Your task to perform on an android device: Go to Reddit.com Image 0: 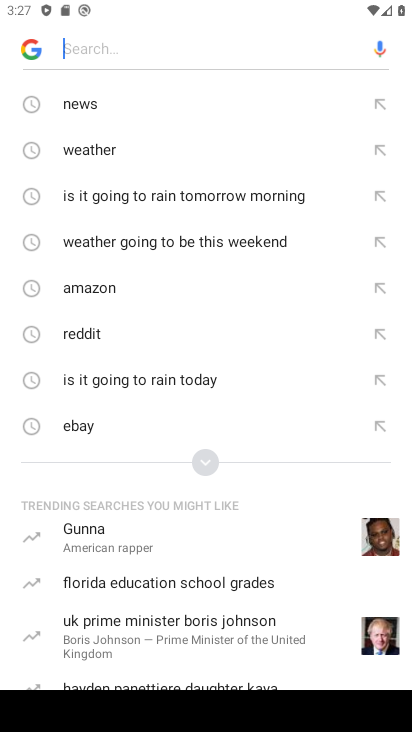
Step 0: press home button
Your task to perform on an android device: Go to Reddit.com Image 1: 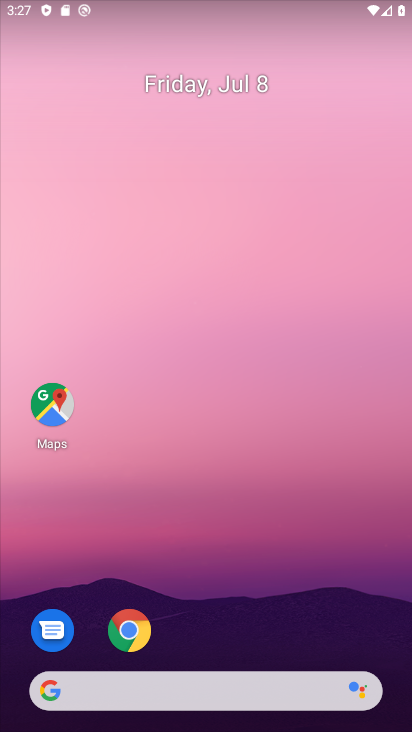
Step 1: click (127, 619)
Your task to perform on an android device: Go to Reddit.com Image 2: 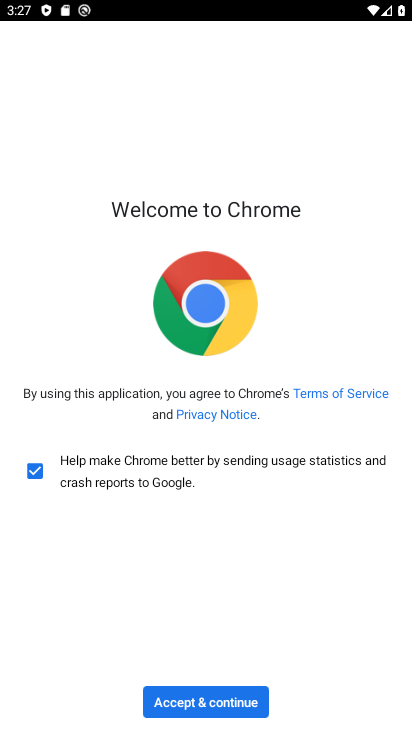
Step 2: click (240, 705)
Your task to perform on an android device: Go to Reddit.com Image 3: 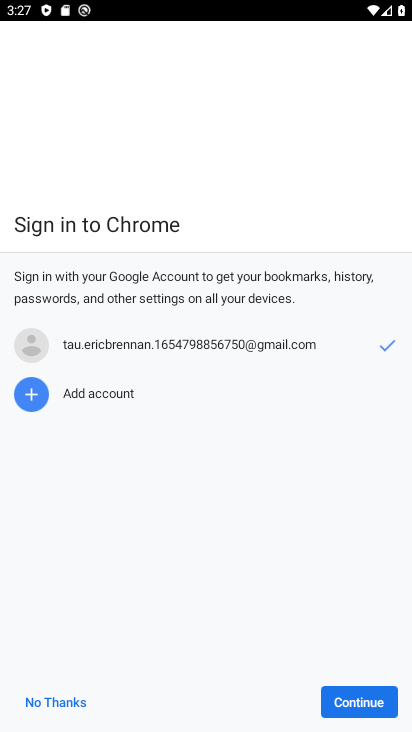
Step 3: click (346, 703)
Your task to perform on an android device: Go to Reddit.com Image 4: 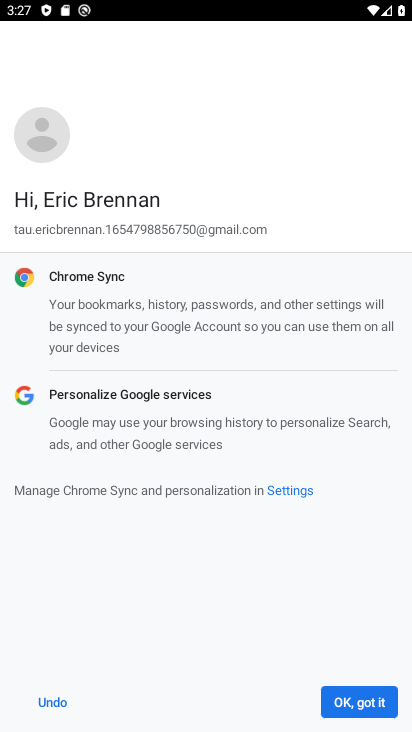
Step 4: click (380, 702)
Your task to perform on an android device: Go to Reddit.com Image 5: 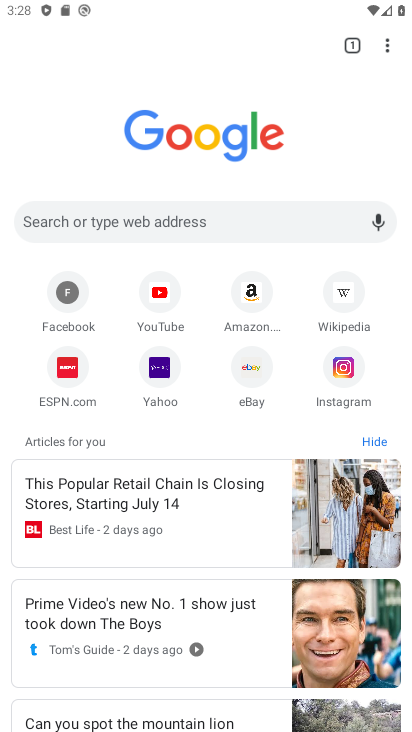
Step 5: click (200, 226)
Your task to perform on an android device: Go to Reddit.com Image 6: 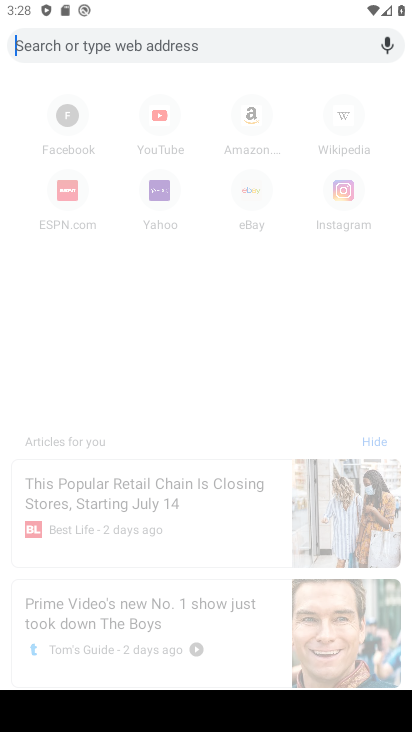
Step 6: type "Reddit.com"
Your task to perform on an android device: Go to Reddit.com Image 7: 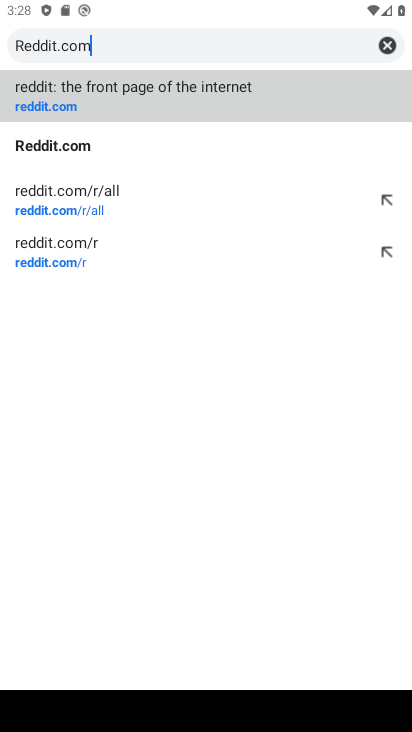
Step 7: click (209, 96)
Your task to perform on an android device: Go to Reddit.com Image 8: 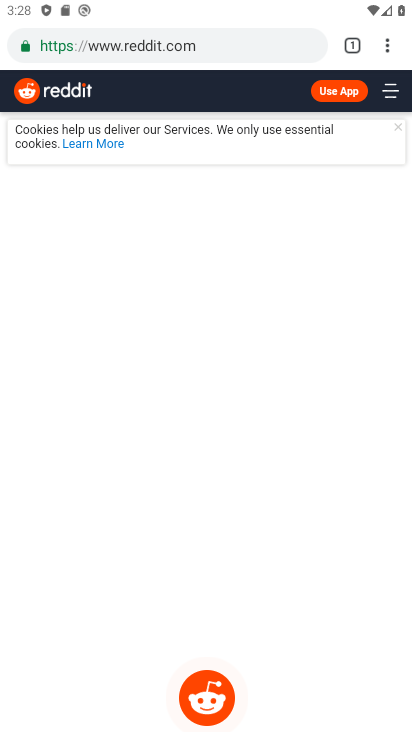
Step 8: task complete